Your task to perform on an android device: Go to calendar. Show me events next week Image 0: 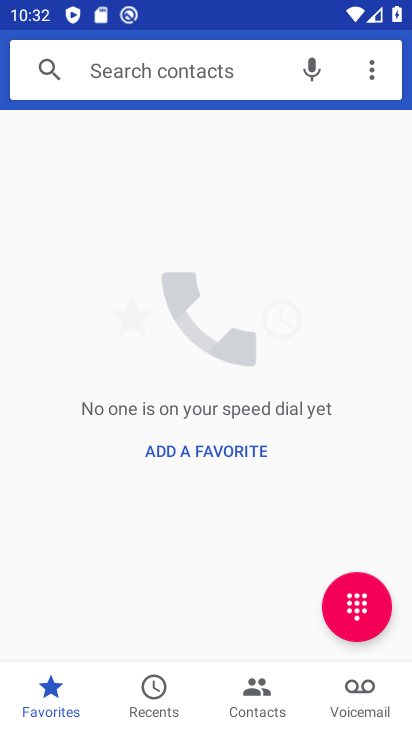
Step 0: press home button
Your task to perform on an android device: Go to calendar. Show me events next week Image 1: 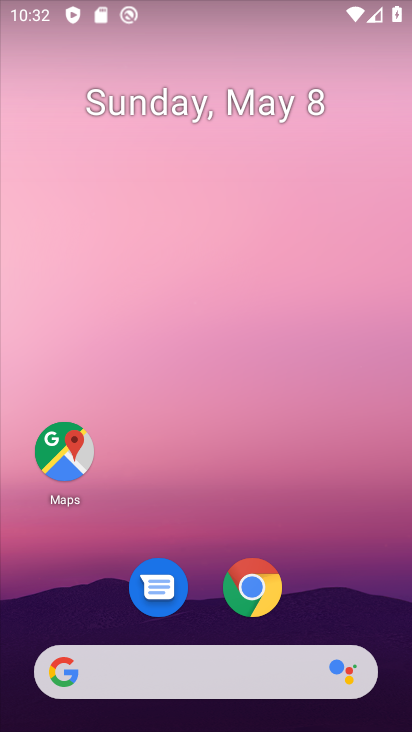
Step 1: drag from (384, 597) to (282, 51)
Your task to perform on an android device: Go to calendar. Show me events next week Image 2: 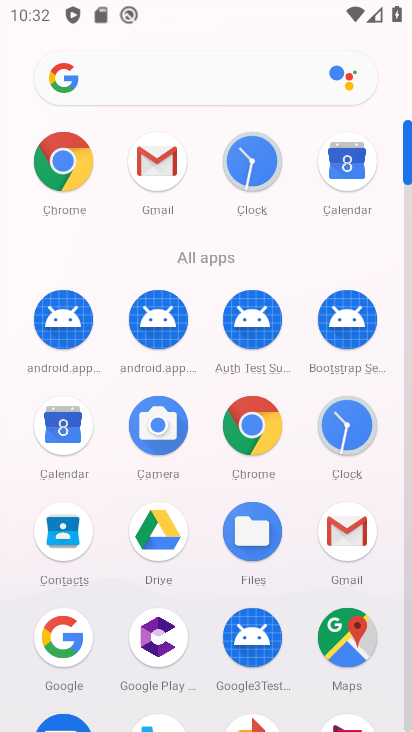
Step 2: click (59, 431)
Your task to perform on an android device: Go to calendar. Show me events next week Image 3: 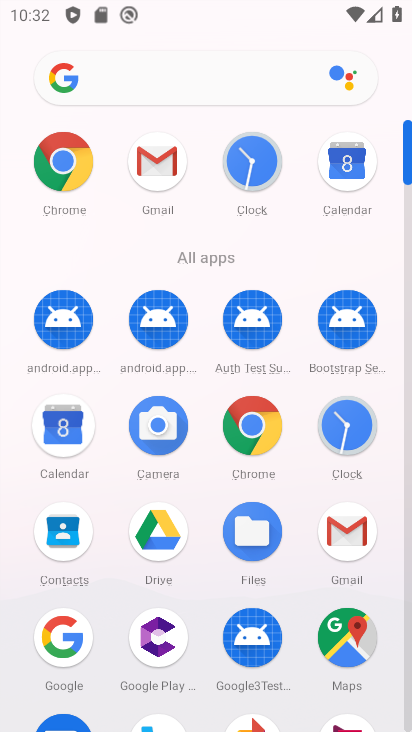
Step 3: click (59, 431)
Your task to perform on an android device: Go to calendar. Show me events next week Image 4: 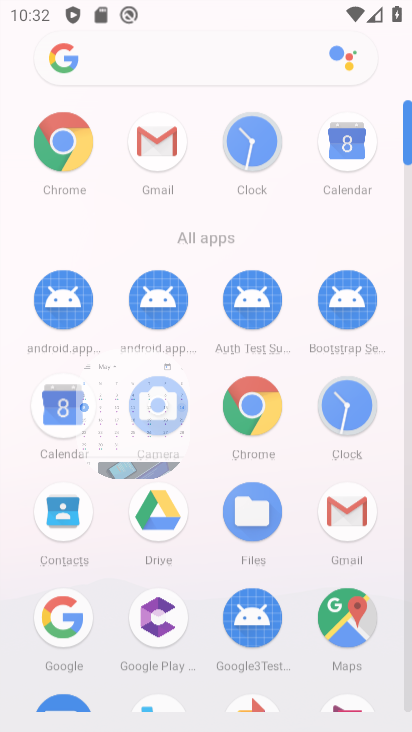
Step 4: click (59, 431)
Your task to perform on an android device: Go to calendar. Show me events next week Image 5: 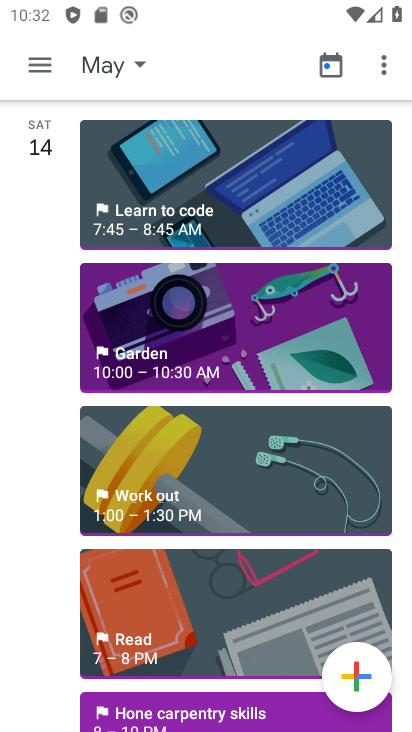
Step 5: drag from (166, 201) to (213, 535)
Your task to perform on an android device: Go to calendar. Show me events next week Image 6: 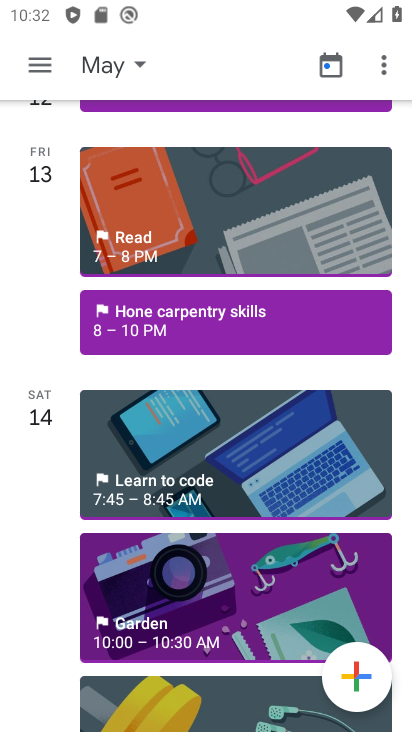
Step 6: click (137, 59)
Your task to perform on an android device: Go to calendar. Show me events next week Image 7: 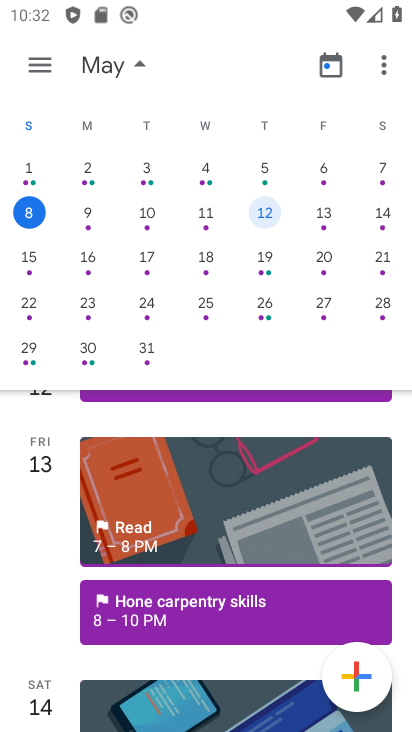
Step 7: click (78, 262)
Your task to perform on an android device: Go to calendar. Show me events next week Image 8: 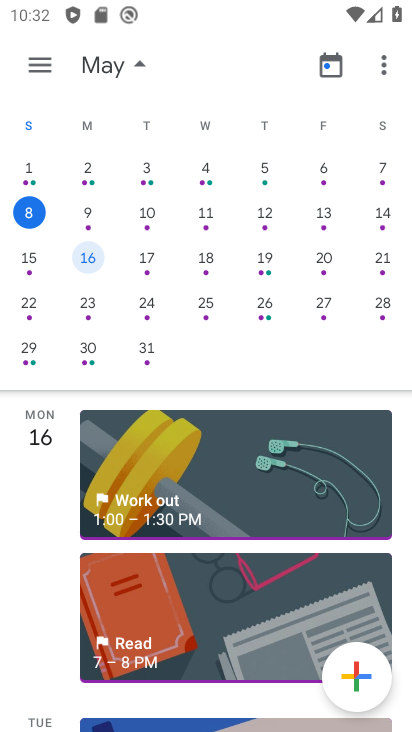
Step 8: click (78, 261)
Your task to perform on an android device: Go to calendar. Show me events next week Image 9: 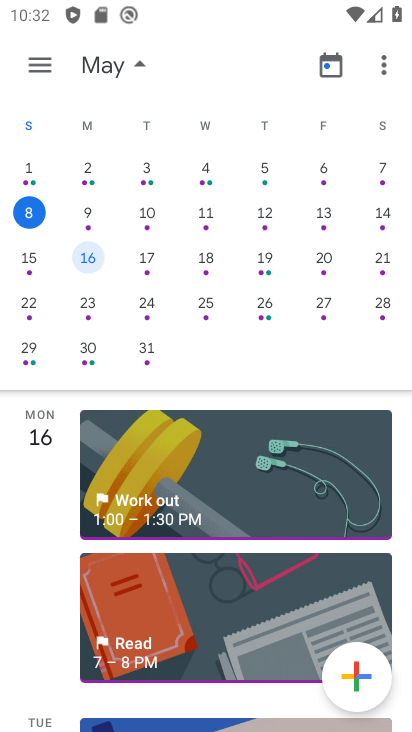
Step 9: drag from (236, 581) to (184, 253)
Your task to perform on an android device: Go to calendar. Show me events next week Image 10: 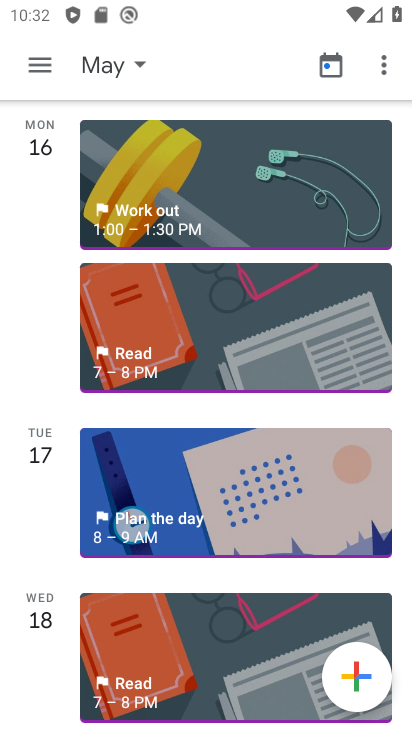
Step 10: drag from (249, 583) to (183, 145)
Your task to perform on an android device: Go to calendar. Show me events next week Image 11: 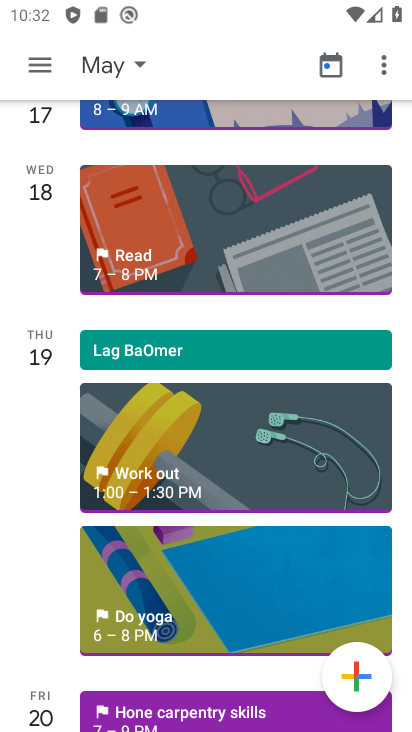
Step 11: drag from (205, 212) to (223, 624)
Your task to perform on an android device: Go to calendar. Show me events next week Image 12: 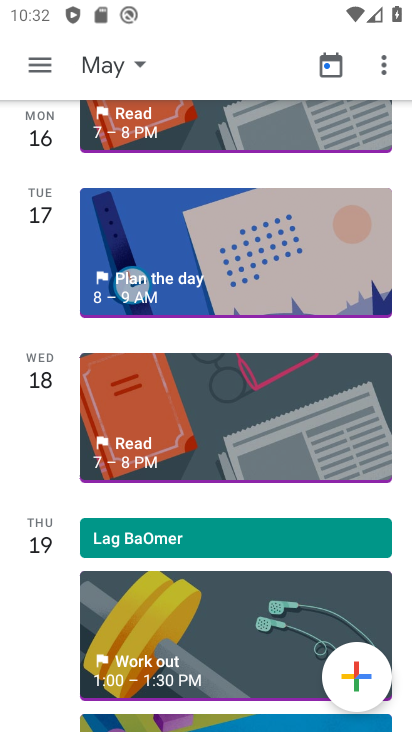
Step 12: drag from (164, 275) to (178, 565)
Your task to perform on an android device: Go to calendar. Show me events next week Image 13: 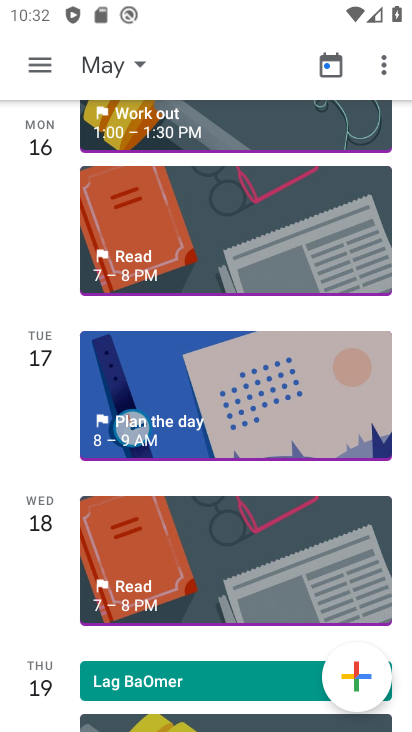
Step 13: drag from (162, 237) to (191, 675)
Your task to perform on an android device: Go to calendar. Show me events next week Image 14: 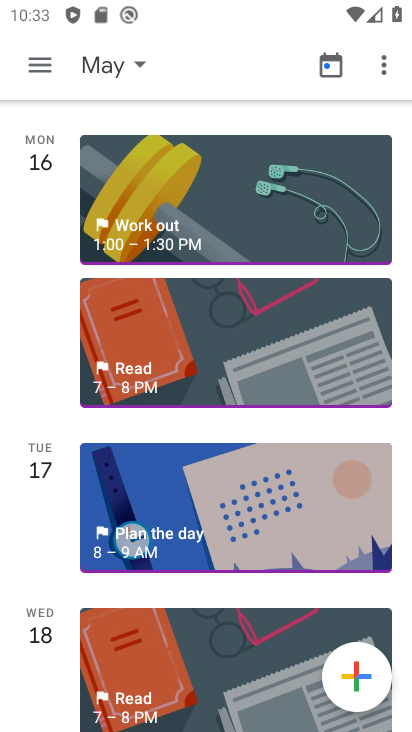
Step 14: click (183, 198)
Your task to perform on an android device: Go to calendar. Show me events next week Image 15: 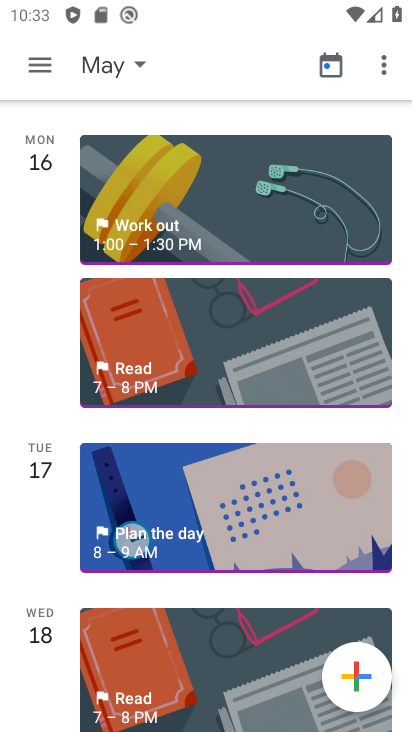
Step 15: task complete